Your task to perform on an android device: turn off improve location accuracy Image 0: 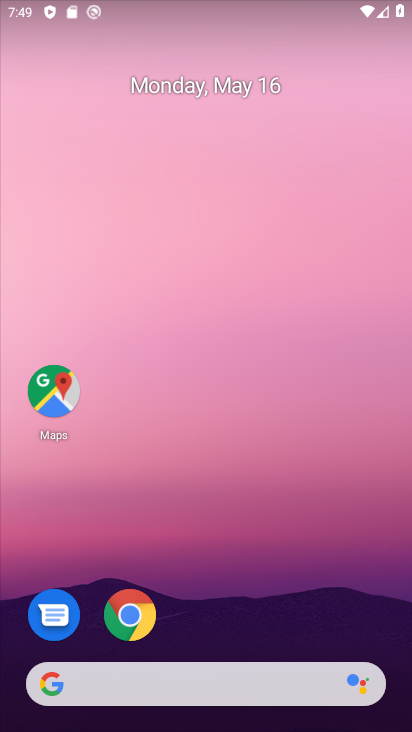
Step 0: drag from (224, 611) to (291, 11)
Your task to perform on an android device: turn off improve location accuracy Image 1: 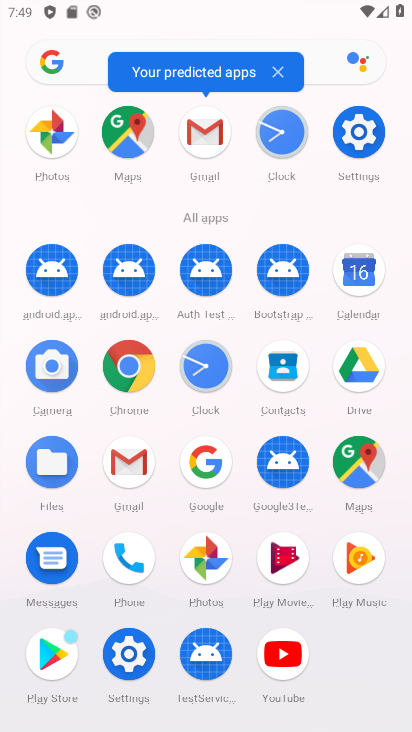
Step 1: click (349, 145)
Your task to perform on an android device: turn off improve location accuracy Image 2: 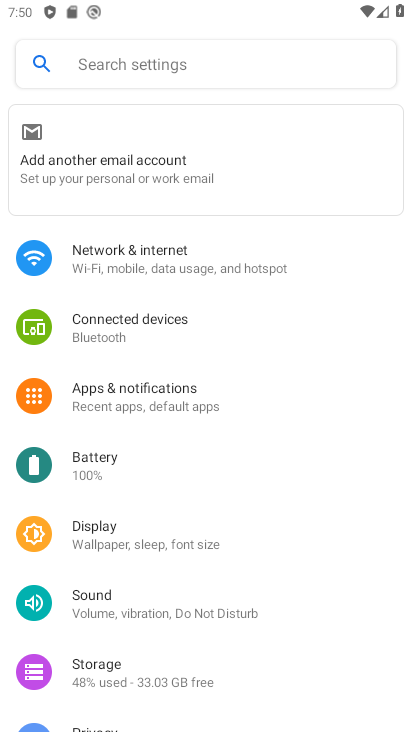
Step 2: drag from (143, 605) to (192, 252)
Your task to perform on an android device: turn off improve location accuracy Image 3: 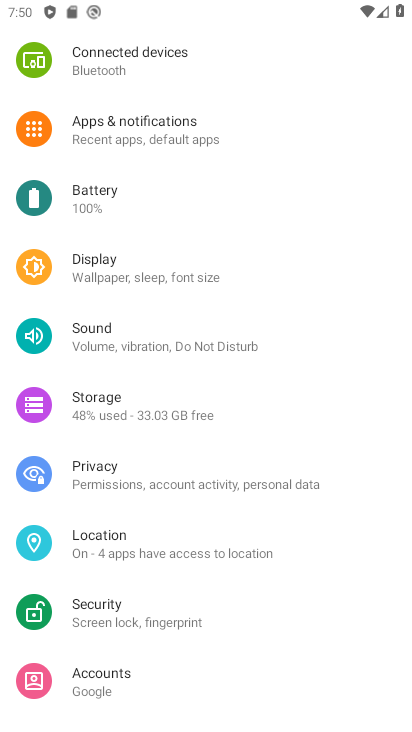
Step 3: click (254, 537)
Your task to perform on an android device: turn off improve location accuracy Image 4: 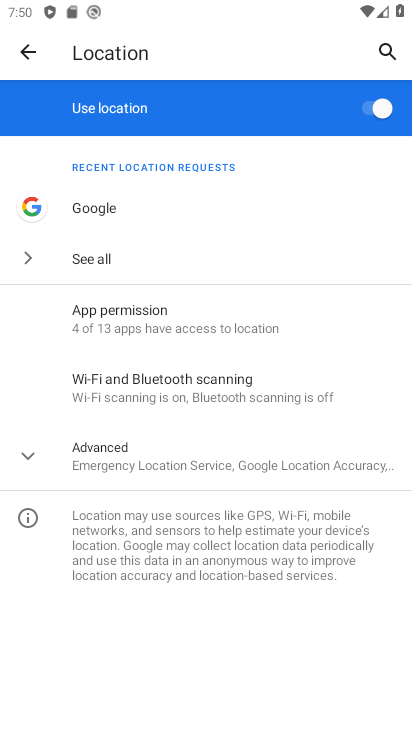
Step 4: click (236, 468)
Your task to perform on an android device: turn off improve location accuracy Image 5: 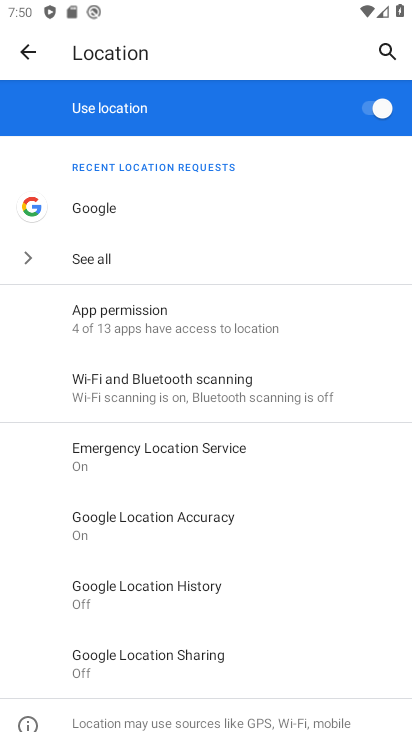
Step 5: click (225, 518)
Your task to perform on an android device: turn off improve location accuracy Image 6: 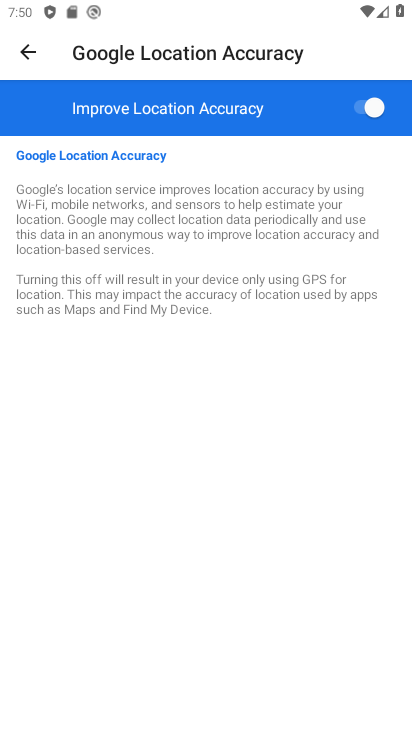
Step 6: click (355, 115)
Your task to perform on an android device: turn off improve location accuracy Image 7: 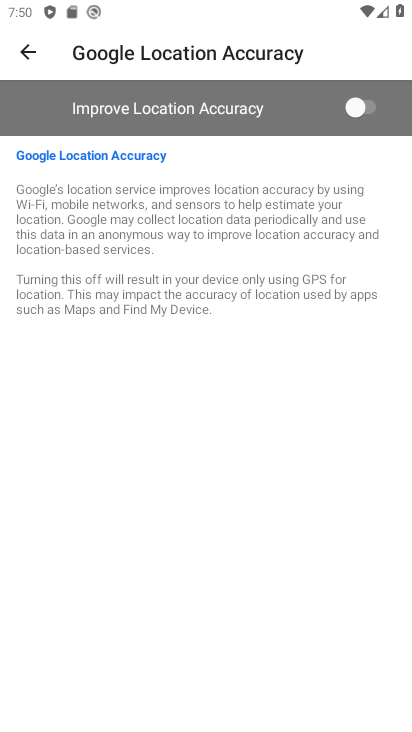
Step 7: task complete